Your task to perform on an android device: Open Yahoo.com Image 0: 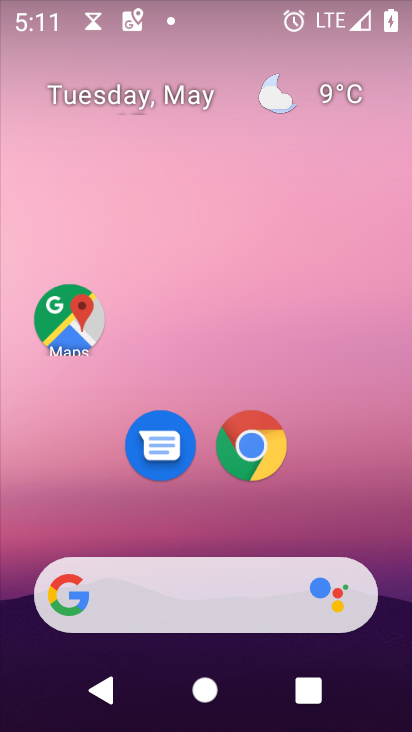
Step 0: drag from (224, 597) to (252, 86)
Your task to perform on an android device: Open Yahoo.com Image 1: 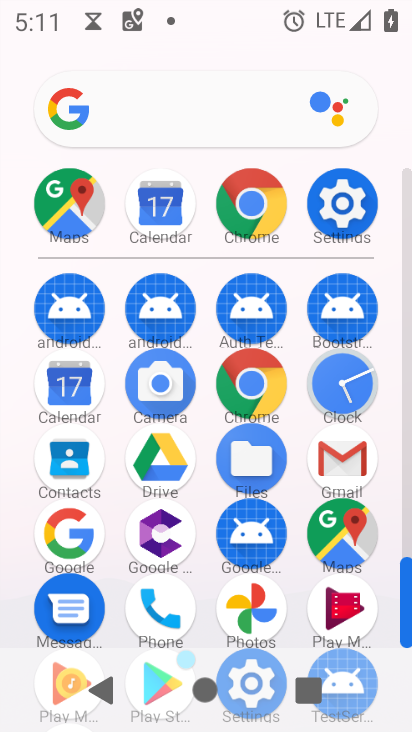
Step 1: click (262, 387)
Your task to perform on an android device: Open Yahoo.com Image 2: 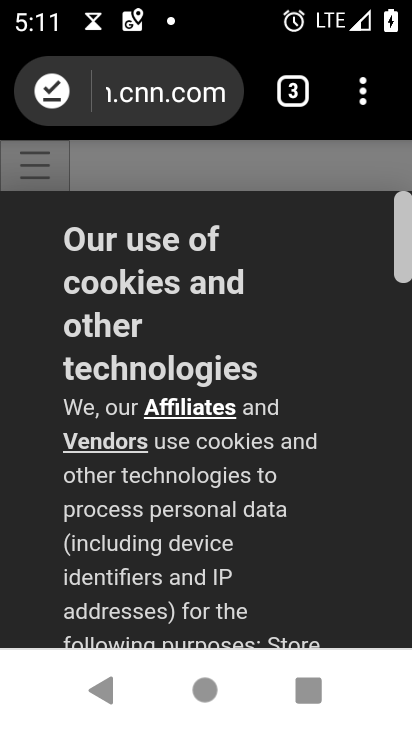
Step 2: click (174, 77)
Your task to perform on an android device: Open Yahoo.com Image 3: 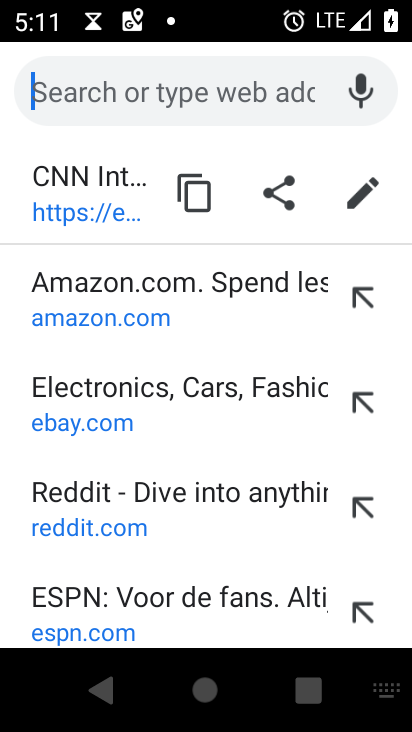
Step 3: drag from (220, 594) to (228, 160)
Your task to perform on an android device: Open Yahoo.com Image 4: 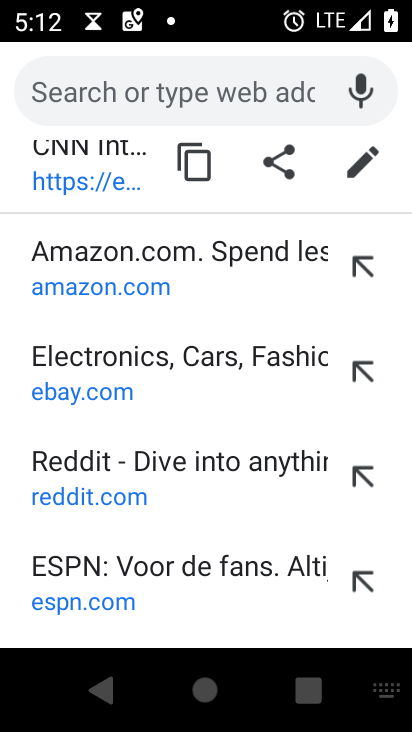
Step 4: type "yahoo.com"
Your task to perform on an android device: Open Yahoo.com Image 5: 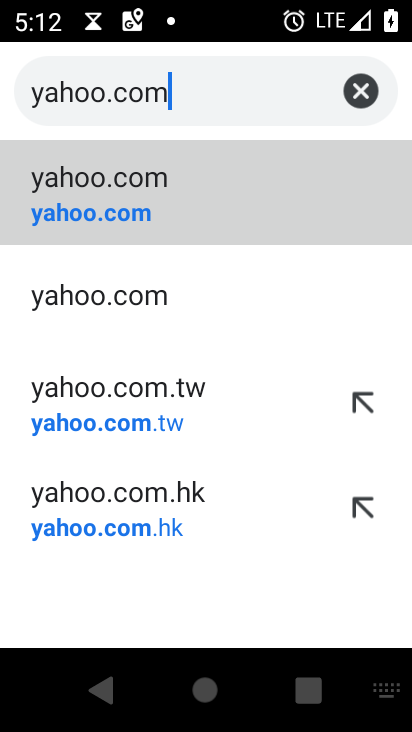
Step 5: click (142, 197)
Your task to perform on an android device: Open Yahoo.com Image 6: 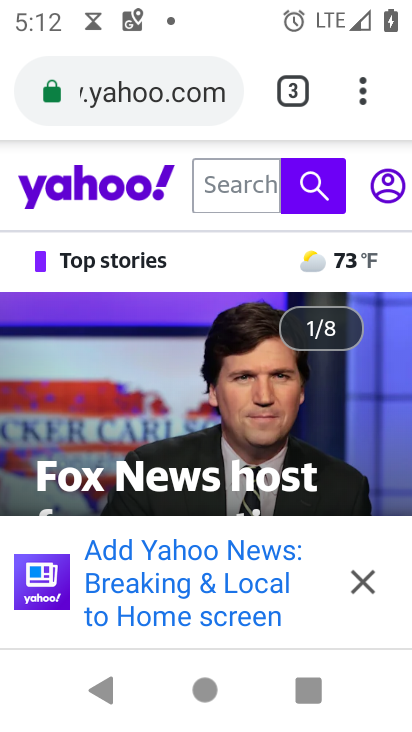
Step 6: task complete